Your task to perform on an android device: What's the weather going to be this weekend? Image 0: 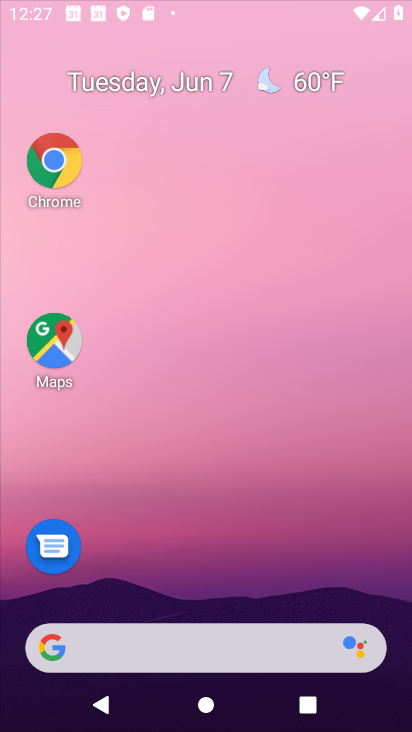
Step 0: drag from (224, 574) to (315, 205)
Your task to perform on an android device: What's the weather going to be this weekend? Image 1: 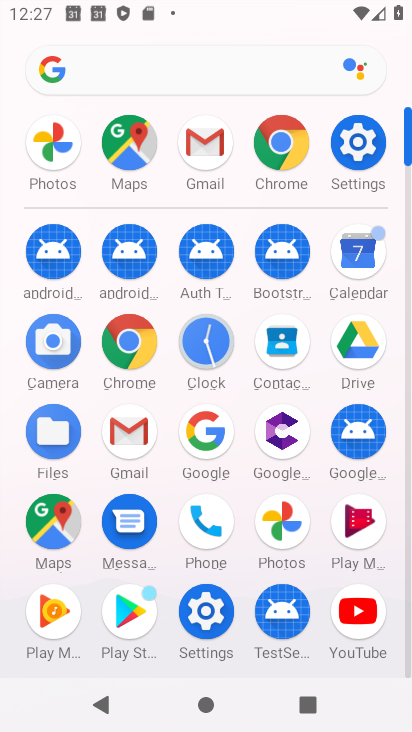
Step 1: click (135, 67)
Your task to perform on an android device: What's the weather going to be this weekend? Image 2: 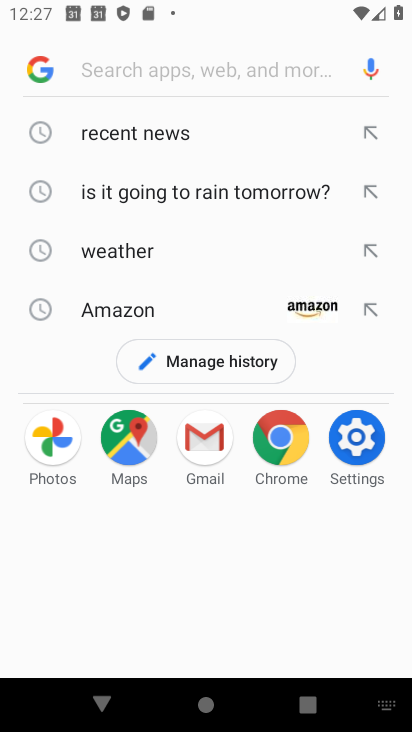
Step 2: type "weather going to be this weekend?"
Your task to perform on an android device: What's the weather going to be this weekend? Image 3: 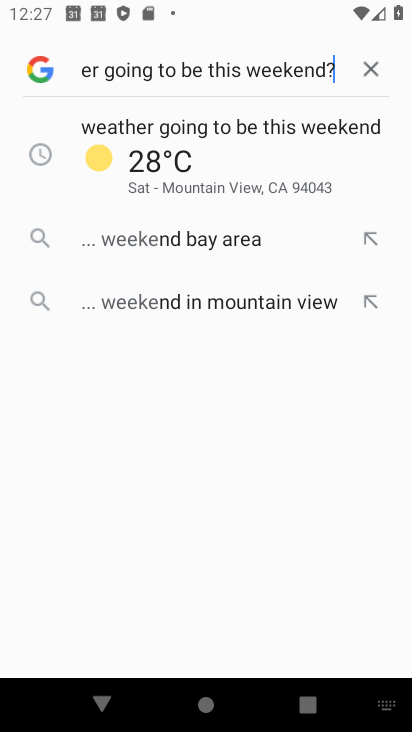
Step 3: type ""
Your task to perform on an android device: What's the weather going to be this weekend? Image 4: 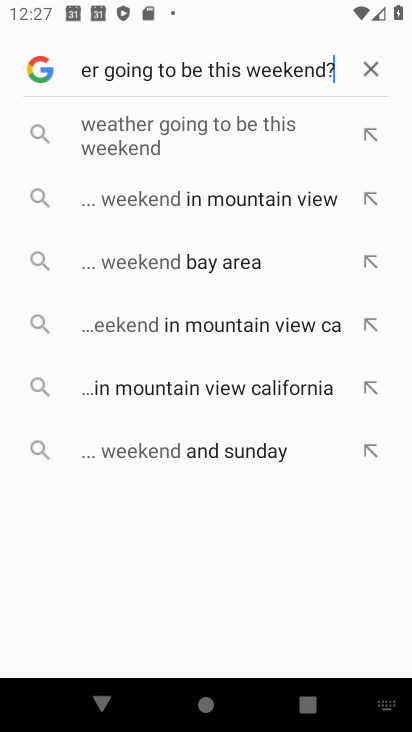
Step 4: click (142, 154)
Your task to perform on an android device: What's the weather going to be this weekend? Image 5: 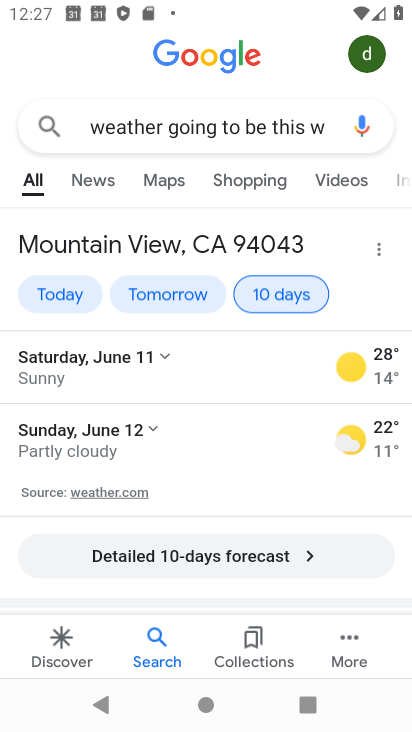
Step 5: task complete